Your task to perform on an android device: change text size in settings app Image 0: 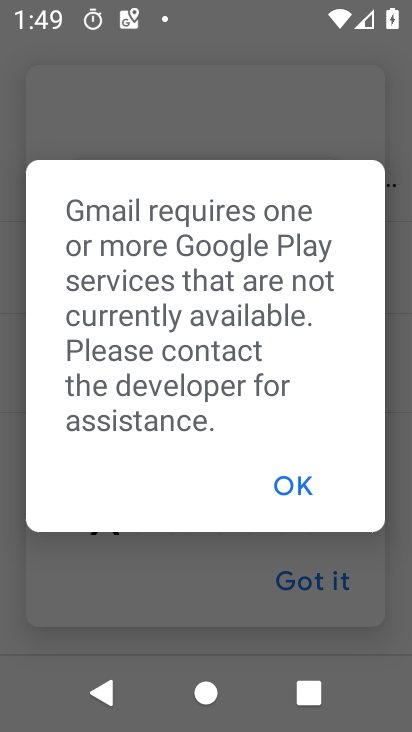
Step 0: press home button
Your task to perform on an android device: change text size in settings app Image 1: 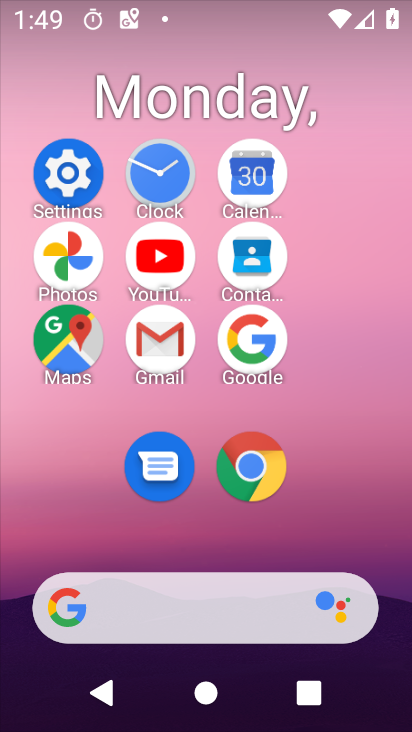
Step 1: click (73, 187)
Your task to perform on an android device: change text size in settings app Image 2: 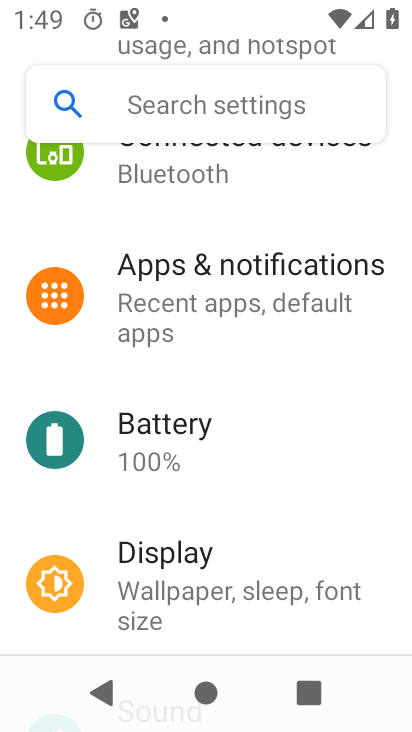
Step 2: click (208, 551)
Your task to perform on an android device: change text size in settings app Image 3: 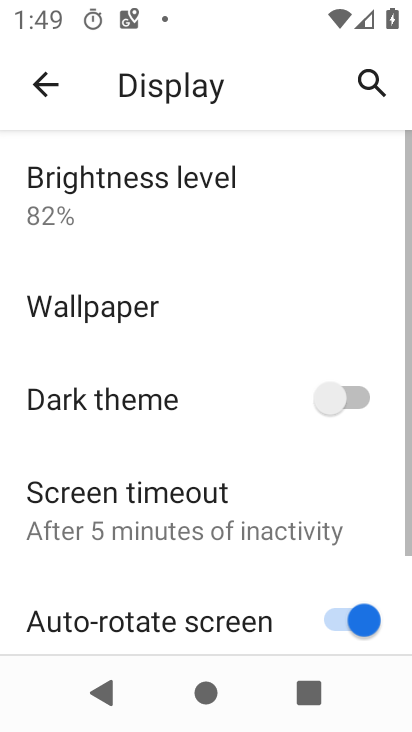
Step 3: drag from (167, 598) to (196, 271)
Your task to perform on an android device: change text size in settings app Image 4: 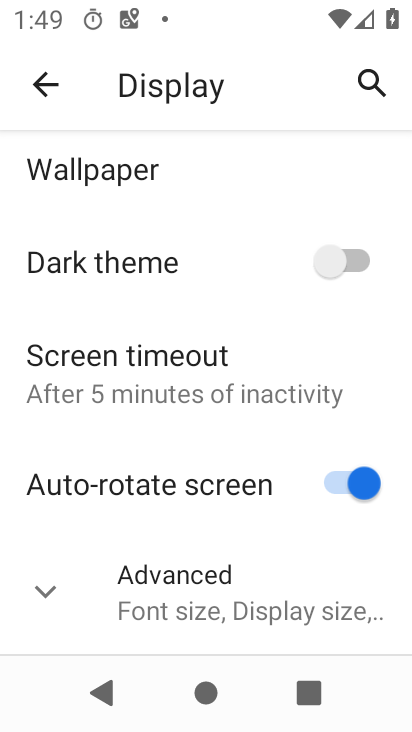
Step 4: click (180, 618)
Your task to perform on an android device: change text size in settings app Image 5: 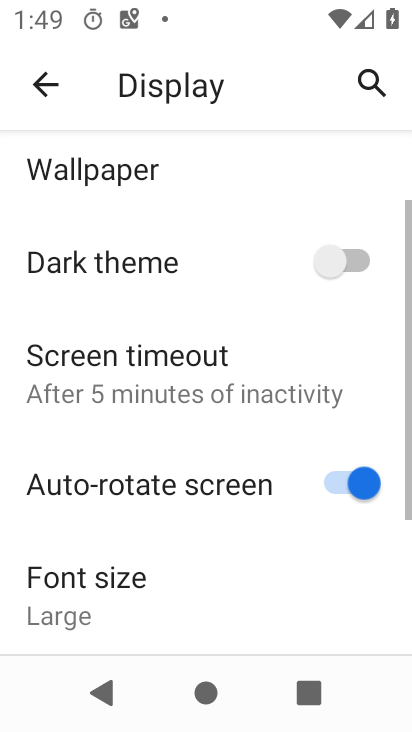
Step 5: click (180, 618)
Your task to perform on an android device: change text size in settings app Image 6: 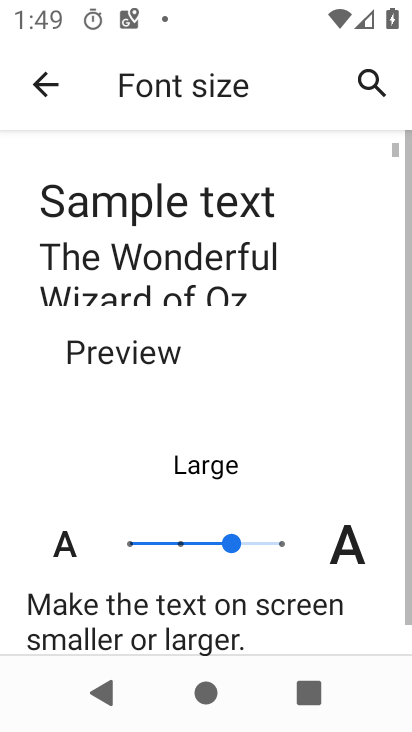
Step 6: click (171, 544)
Your task to perform on an android device: change text size in settings app Image 7: 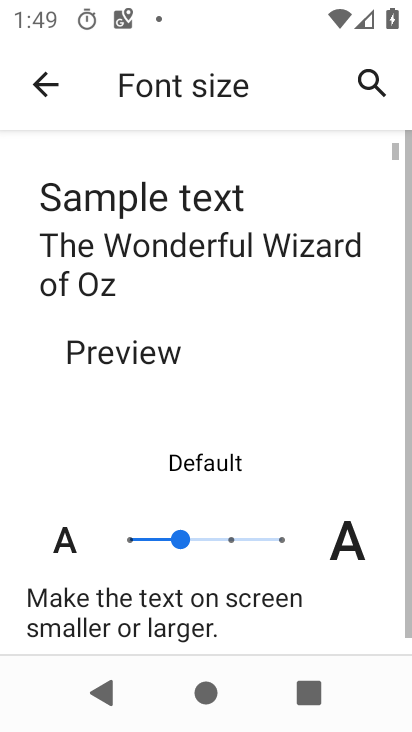
Step 7: task complete